Your task to perform on an android device: install app "Skype" Image 0: 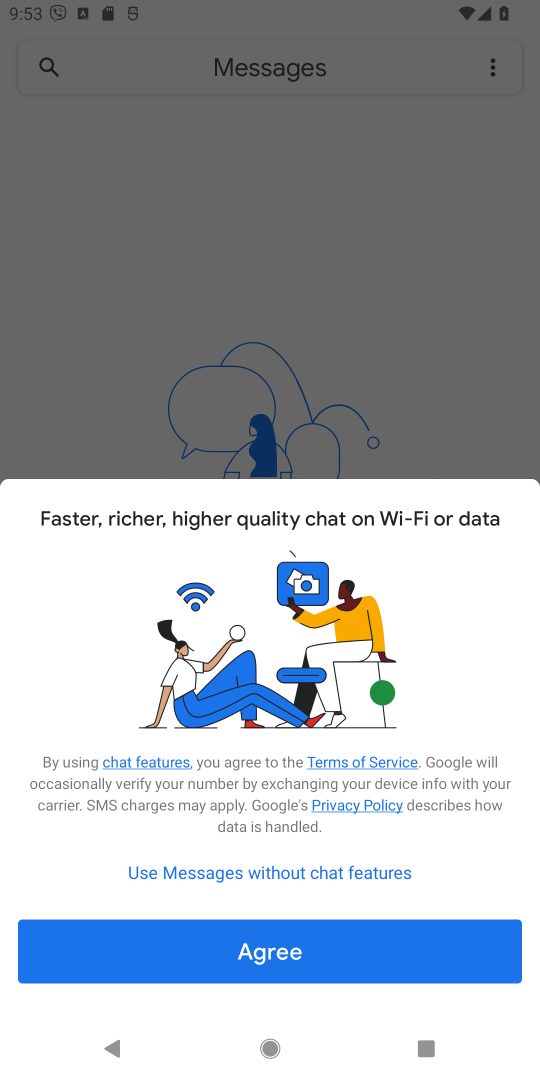
Step 0: press home button
Your task to perform on an android device: install app "Skype" Image 1: 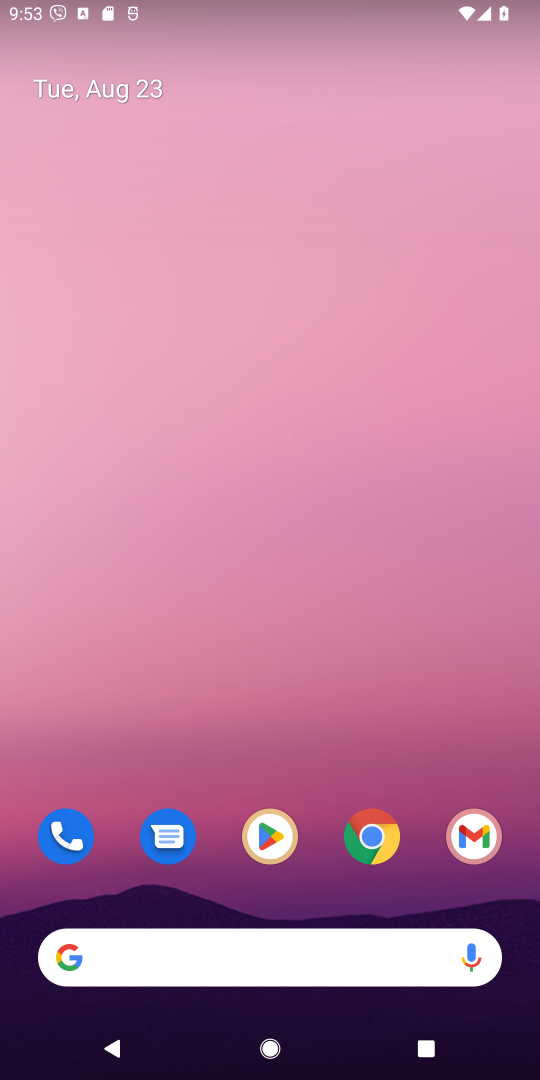
Step 1: click (270, 836)
Your task to perform on an android device: install app "Skype" Image 2: 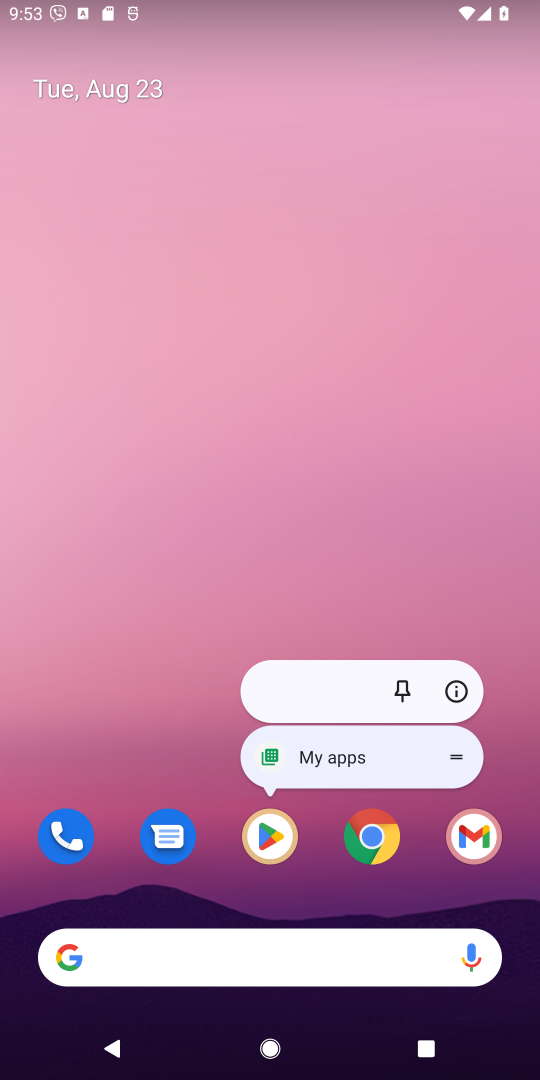
Step 2: click (266, 840)
Your task to perform on an android device: install app "Skype" Image 3: 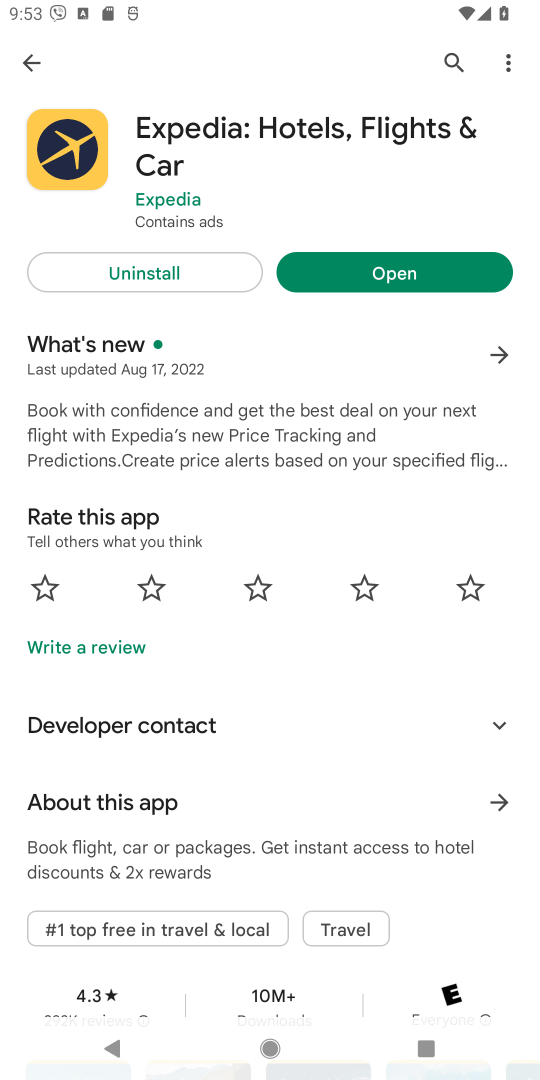
Step 3: click (457, 55)
Your task to perform on an android device: install app "Skype" Image 4: 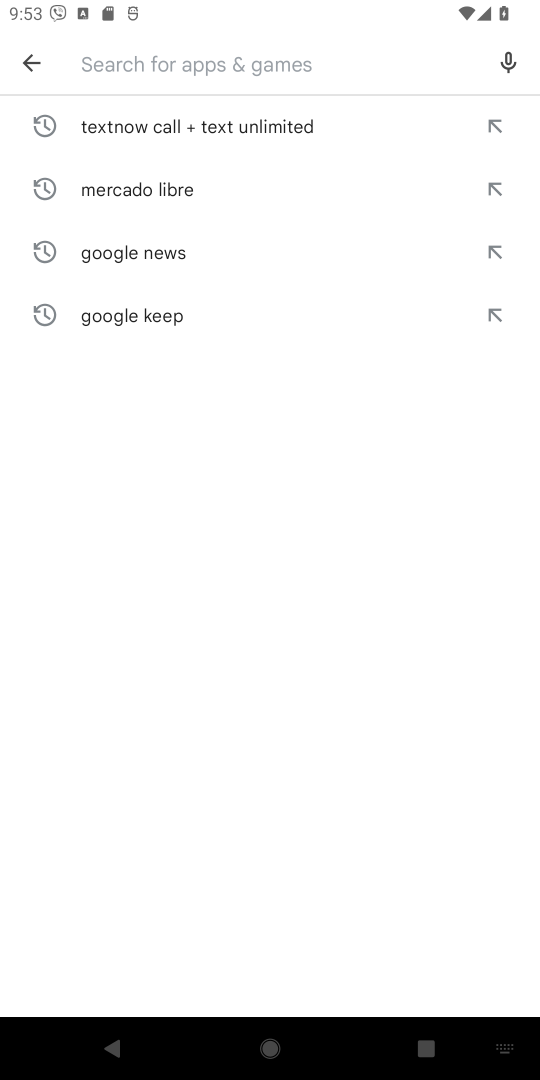
Step 4: type "Skype"
Your task to perform on an android device: install app "Skype" Image 5: 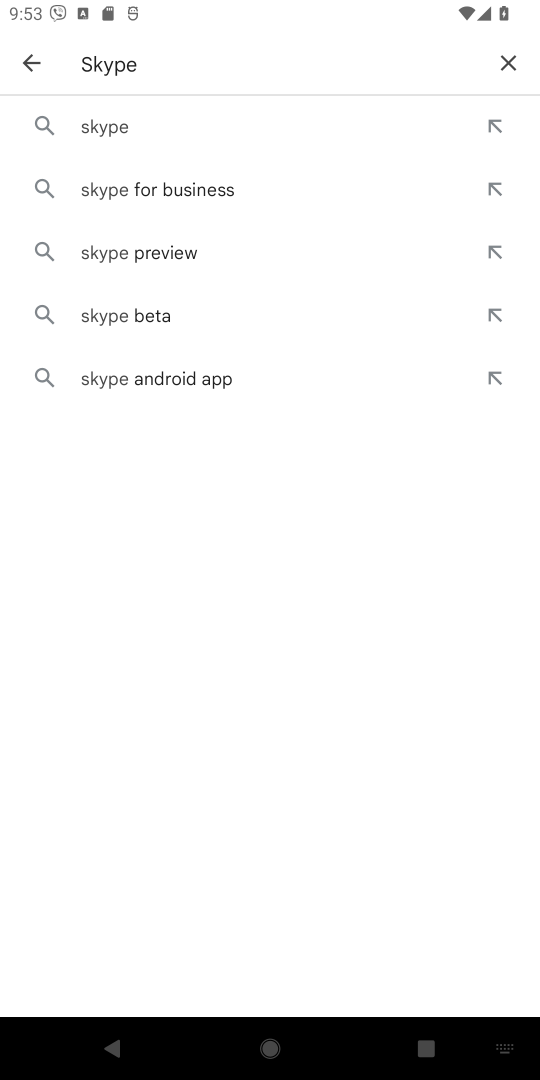
Step 5: click (106, 116)
Your task to perform on an android device: install app "Skype" Image 6: 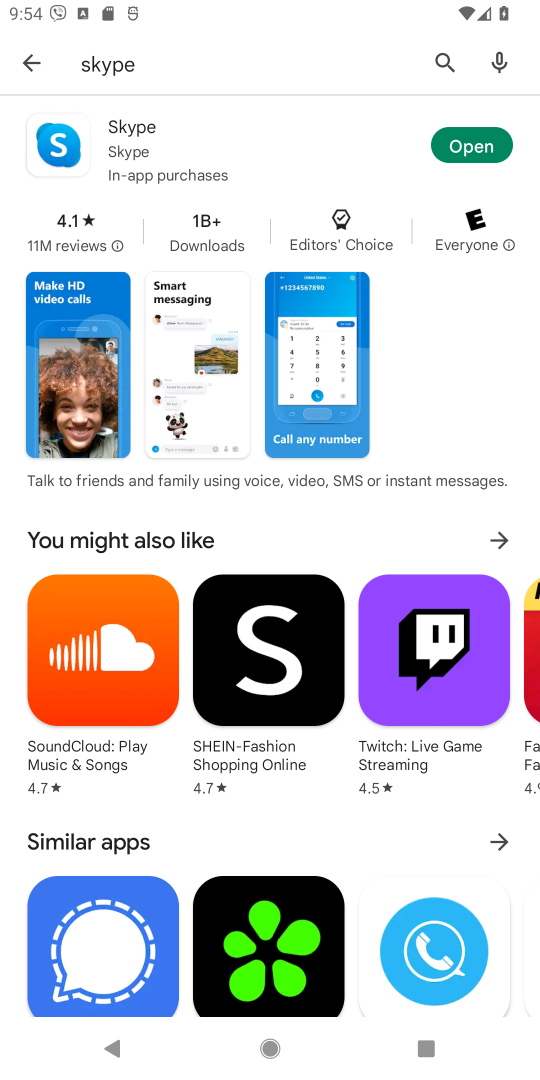
Step 6: task complete